Your task to perform on an android device: Search for pizza restaurants on Maps Image 0: 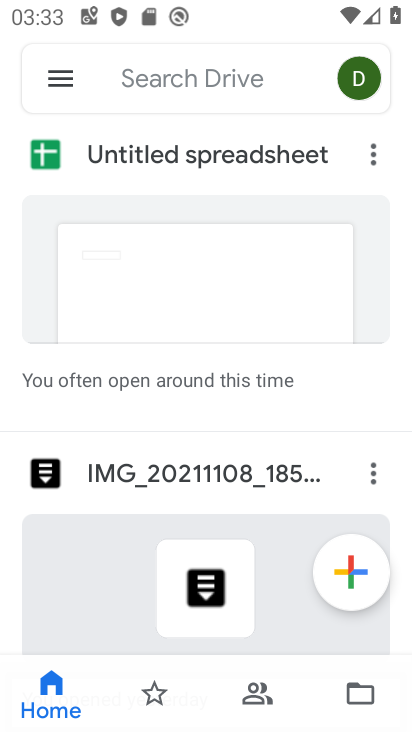
Step 0: press back button
Your task to perform on an android device: Search for pizza restaurants on Maps Image 1: 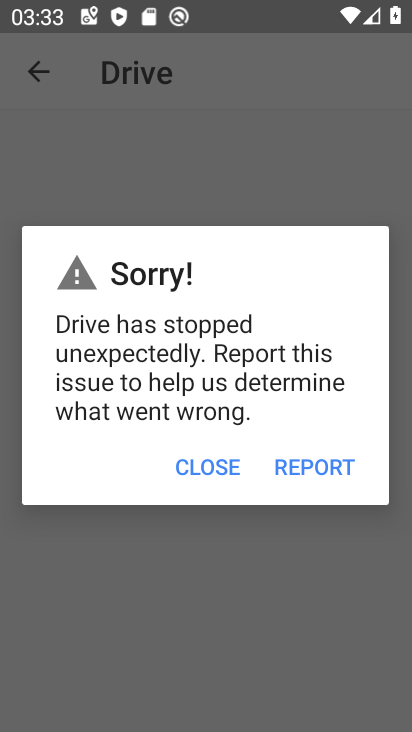
Step 1: press home button
Your task to perform on an android device: Search for pizza restaurants on Maps Image 2: 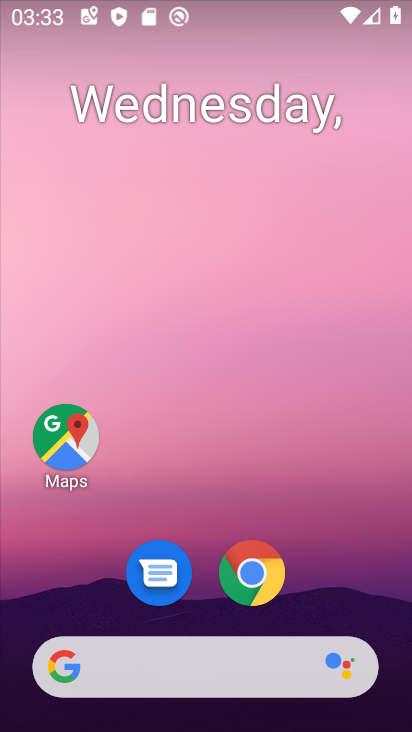
Step 2: click (65, 439)
Your task to perform on an android device: Search for pizza restaurants on Maps Image 3: 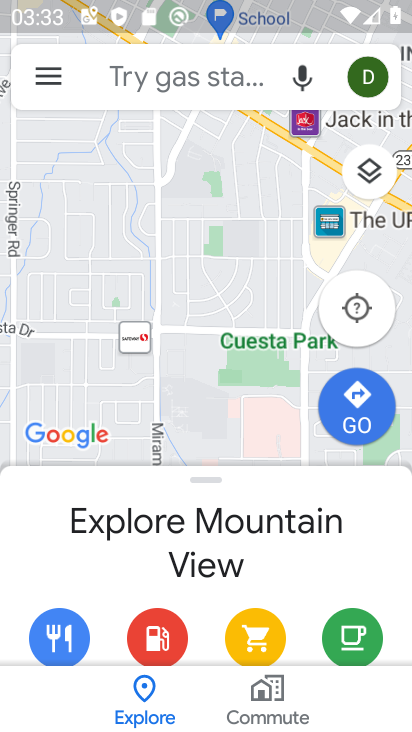
Step 3: click (210, 83)
Your task to perform on an android device: Search for pizza restaurants on Maps Image 4: 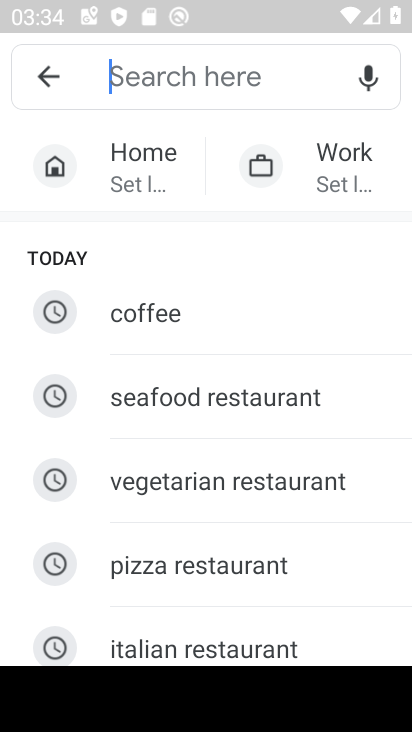
Step 4: click (197, 74)
Your task to perform on an android device: Search for pizza restaurants on Maps Image 5: 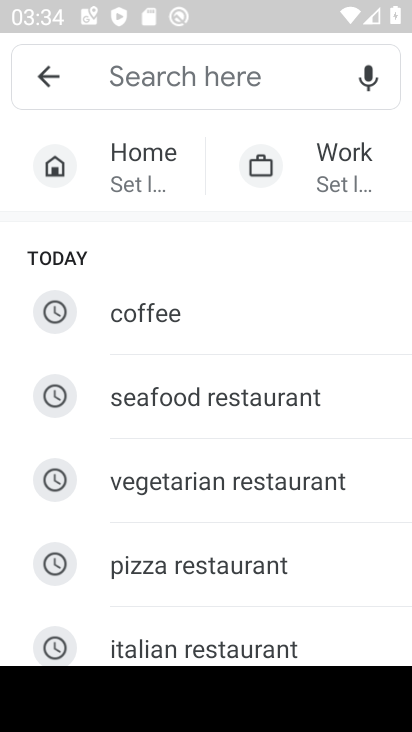
Step 5: type "pizza restaurants"
Your task to perform on an android device: Search for pizza restaurants on Maps Image 6: 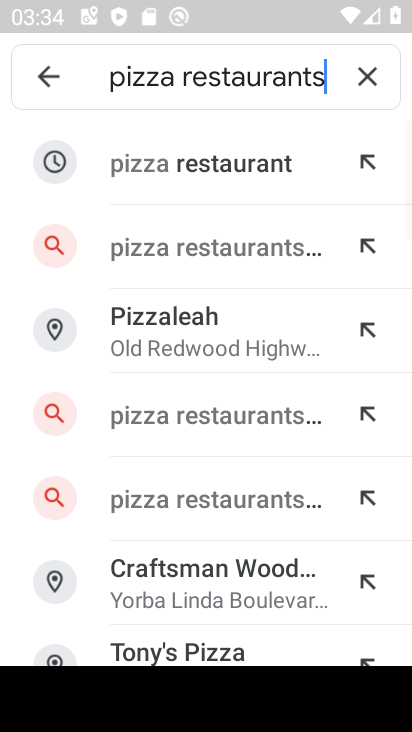
Step 6: click (212, 160)
Your task to perform on an android device: Search for pizza restaurants on Maps Image 7: 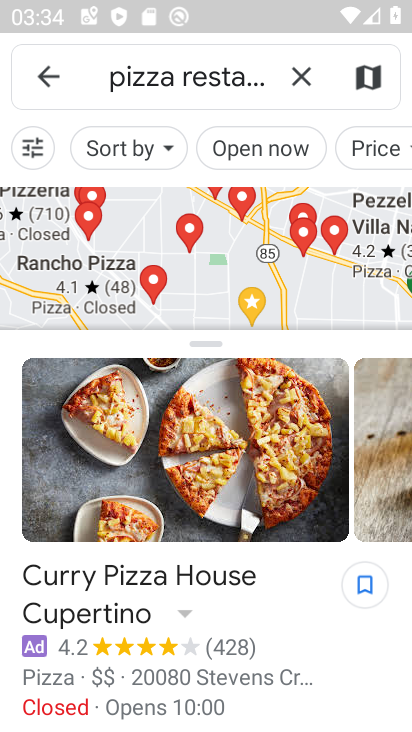
Step 7: task complete